Your task to perform on an android device: allow notifications from all sites in the chrome app Image 0: 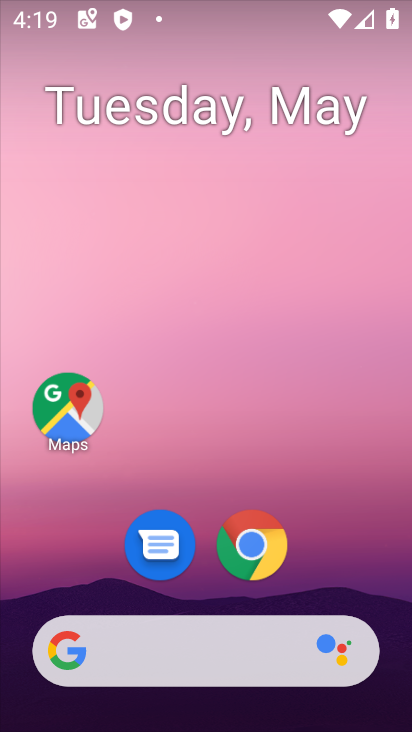
Step 0: click (253, 544)
Your task to perform on an android device: allow notifications from all sites in the chrome app Image 1: 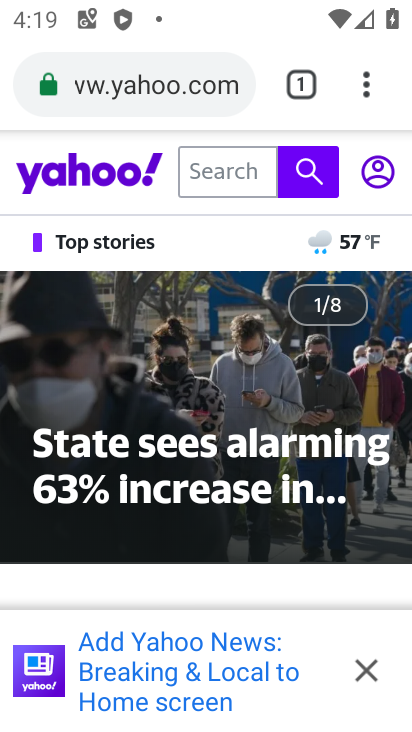
Step 1: click (367, 86)
Your task to perform on an android device: allow notifications from all sites in the chrome app Image 2: 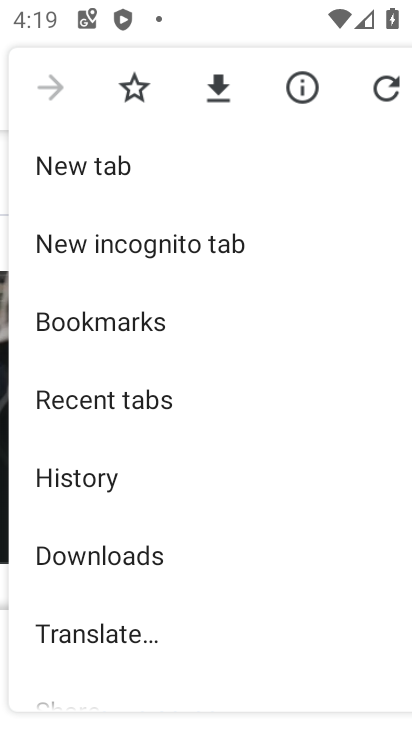
Step 2: drag from (149, 453) to (193, 307)
Your task to perform on an android device: allow notifications from all sites in the chrome app Image 3: 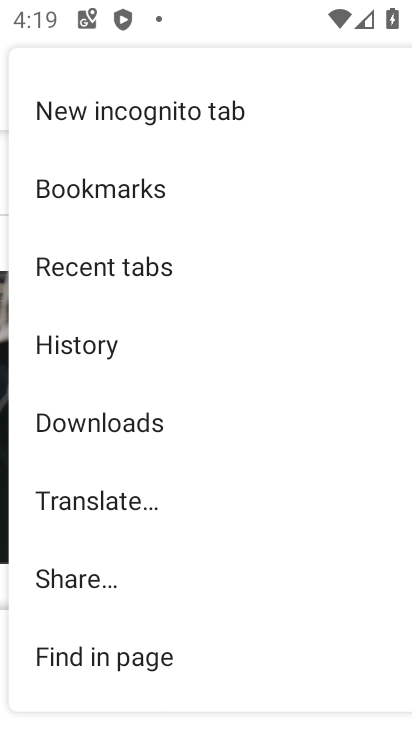
Step 3: drag from (123, 520) to (175, 420)
Your task to perform on an android device: allow notifications from all sites in the chrome app Image 4: 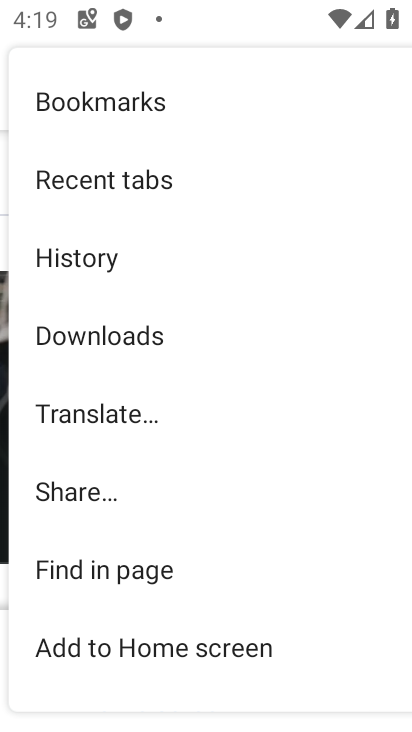
Step 4: drag from (182, 605) to (244, 490)
Your task to perform on an android device: allow notifications from all sites in the chrome app Image 5: 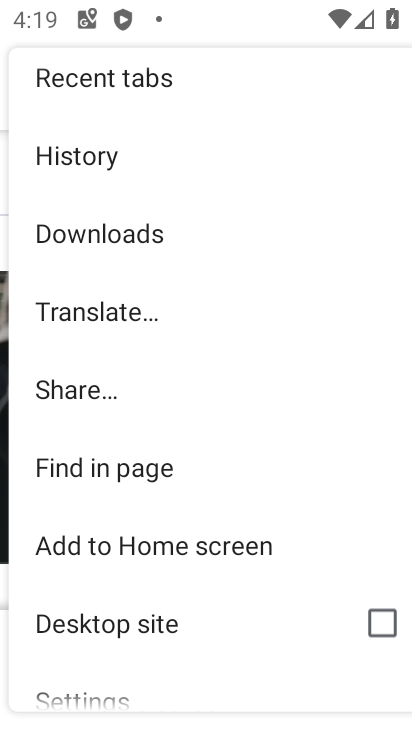
Step 5: drag from (167, 588) to (252, 446)
Your task to perform on an android device: allow notifications from all sites in the chrome app Image 6: 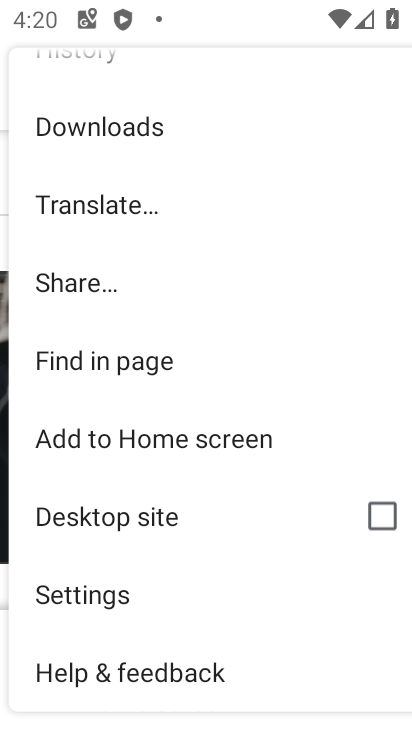
Step 6: click (119, 590)
Your task to perform on an android device: allow notifications from all sites in the chrome app Image 7: 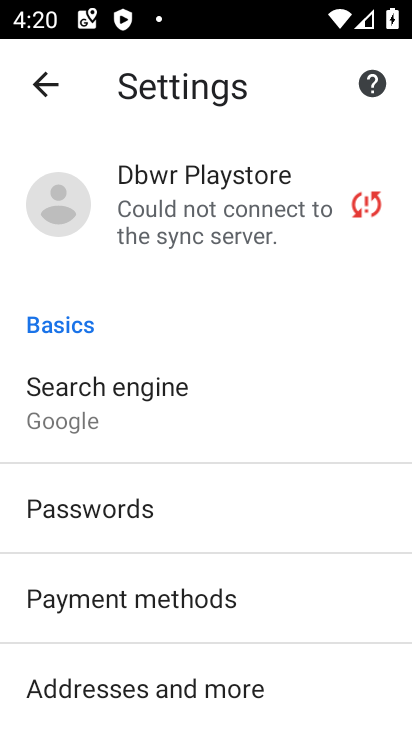
Step 7: drag from (159, 647) to (235, 487)
Your task to perform on an android device: allow notifications from all sites in the chrome app Image 8: 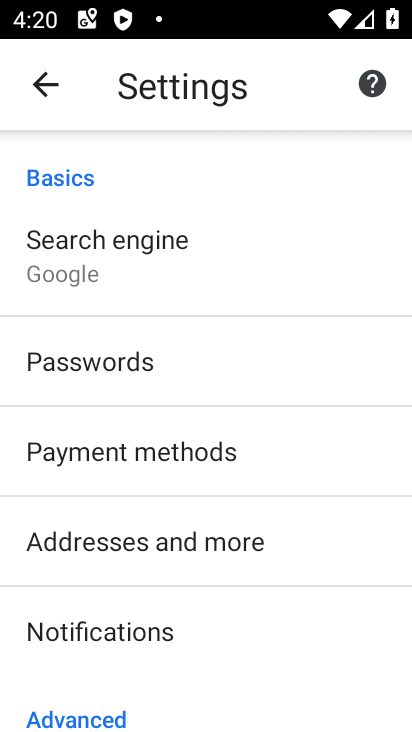
Step 8: drag from (182, 630) to (247, 523)
Your task to perform on an android device: allow notifications from all sites in the chrome app Image 9: 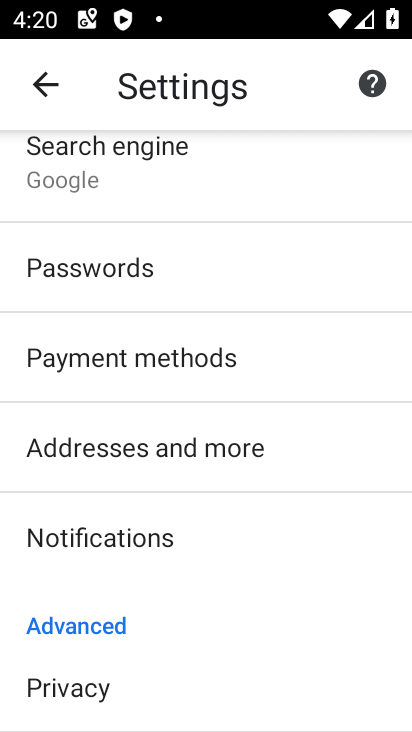
Step 9: click (151, 541)
Your task to perform on an android device: allow notifications from all sites in the chrome app Image 10: 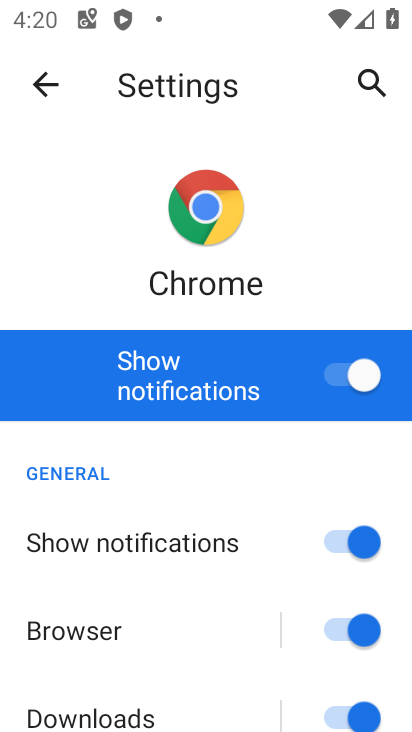
Step 10: drag from (170, 623) to (246, 455)
Your task to perform on an android device: allow notifications from all sites in the chrome app Image 11: 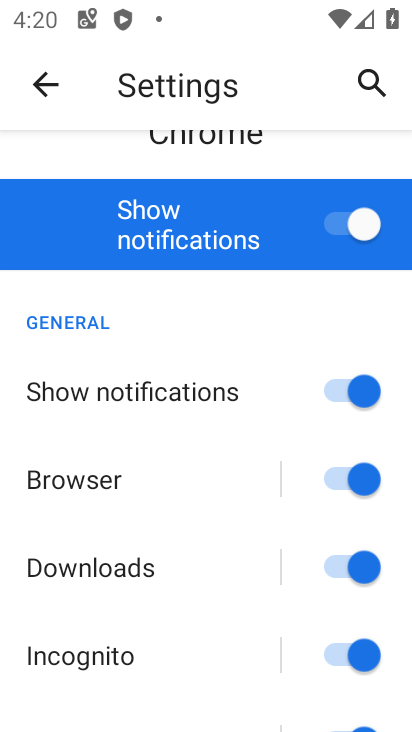
Step 11: drag from (173, 632) to (233, 451)
Your task to perform on an android device: allow notifications from all sites in the chrome app Image 12: 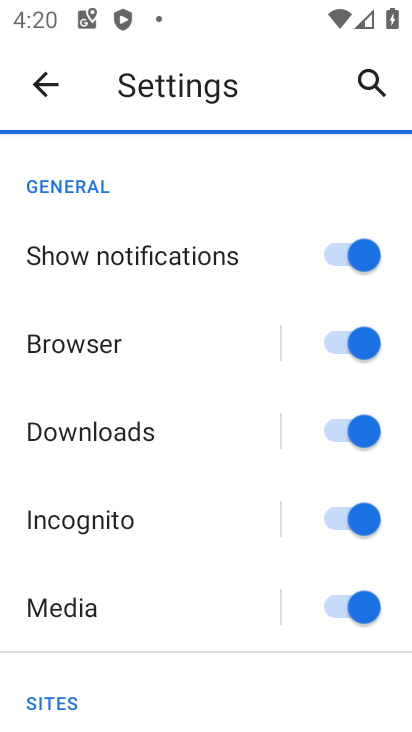
Step 12: press back button
Your task to perform on an android device: allow notifications from all sites in the chrome app Image 13: 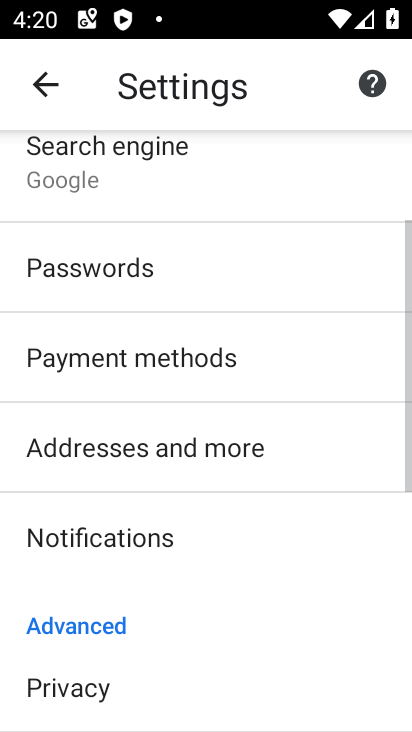
Step 13: drag from (151, 654) to (249, 513)
Your task to perform on an android device: allow notifications from all sites in the chrome app Image 14: 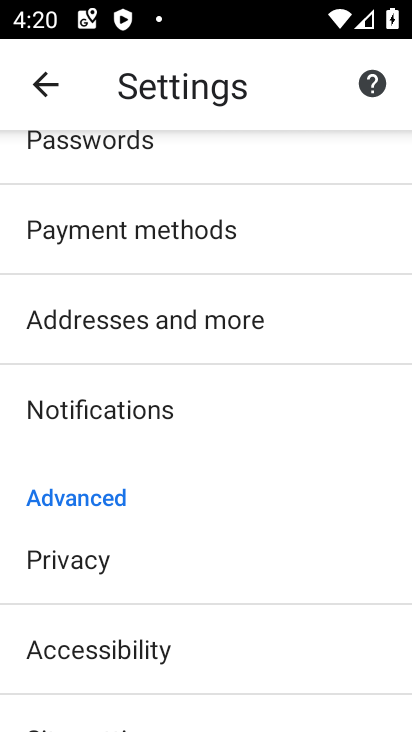
Step 14: drag from (184, 668) to (271, 550)
Your task to perform on an android device: allow notifications from all sites in the chrome app Image 15: 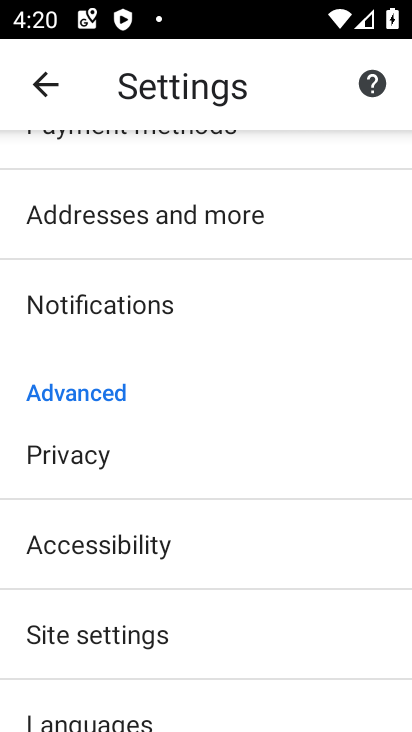
Step 15: drag from (186, 608) to (203, 512)
Your task to perform on an android device: allow notifications from all sites in the chrome app Image 16: 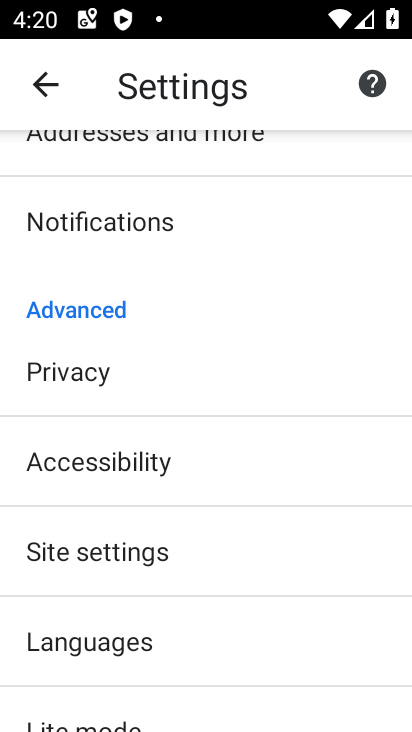
Step 16: click (157, 549)
Your task to perform on an android device: allow notifications from all sites in the chrome app Image 17: 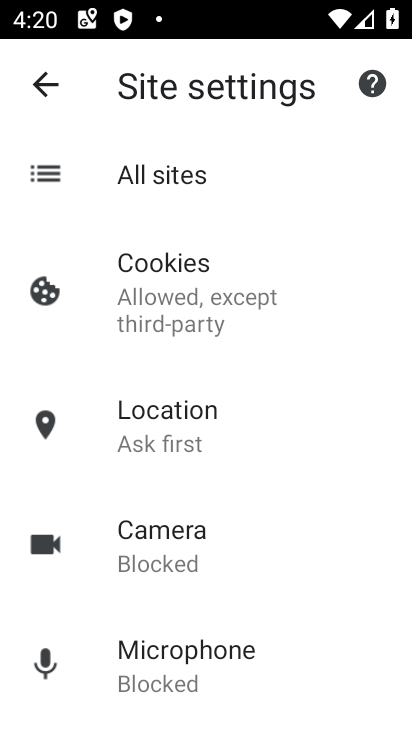
Step 17: drag from (200, 607) to (248, 514)
Your task to perform on an android device: allow notifications from all sites in the chrome app Image 18: 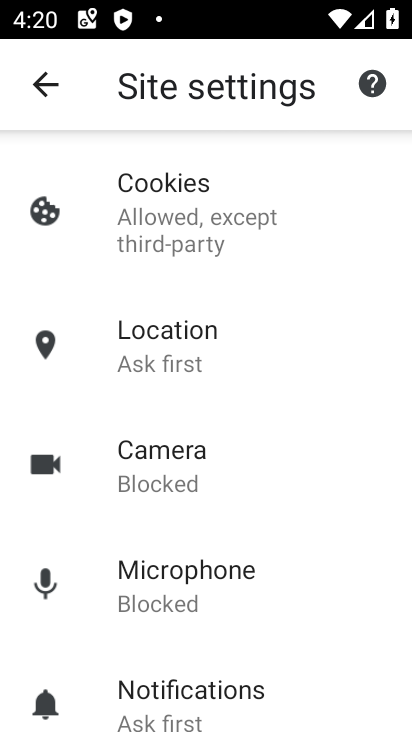
Step 18: drag from (178, 668) to (244, 555)
Your task to perform on an android device: allow notifications from all sites in the chrome app Image 19: 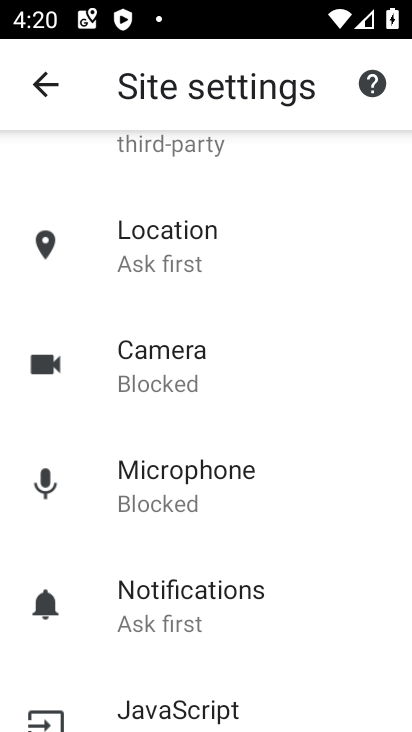
Step 19: click (227, 609)
Your task to perform on an android device: allow notifications from all sites in the chrome app Image 20: 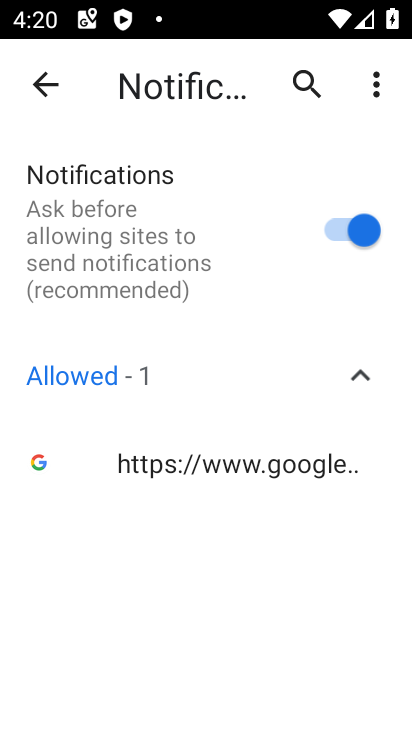
Step 20: task complete